Your task to perform on an android device: turn off wifi Image 0: 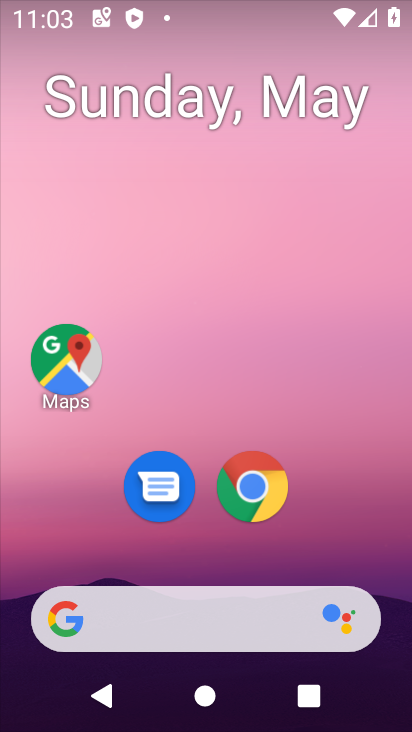
Step 0: drag from (224, 546) to (239, 121)
Your task to perform on an android device: turn off wifi Image 1: 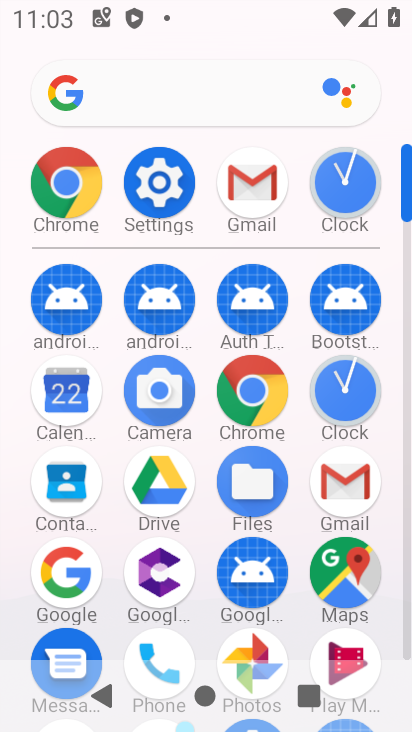
Step 1: click (163, 181)
Your task to perform on an android device: turn off wifi Image 2: 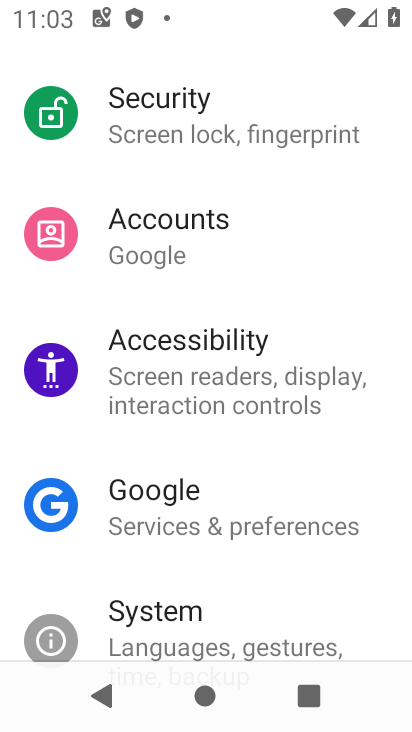
Step 2: drag from (176, 187) to (145, 576)
Your task to perform on an android device: turn off wifi Image 3: 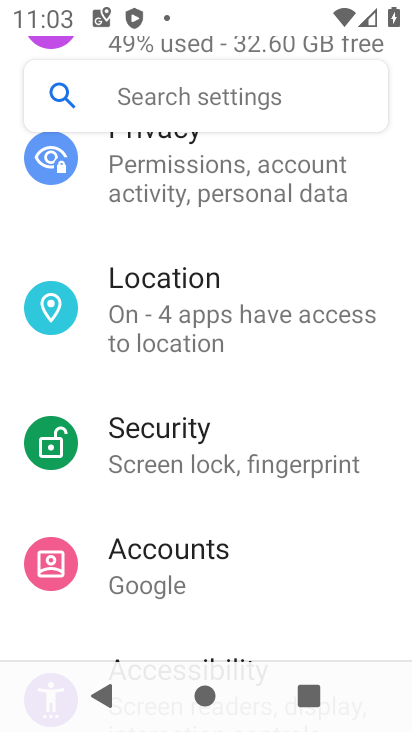
Step 3: drag from (197, 350) to (144, 706)
Your task to perform on an android device: turn off wifi Image 4: 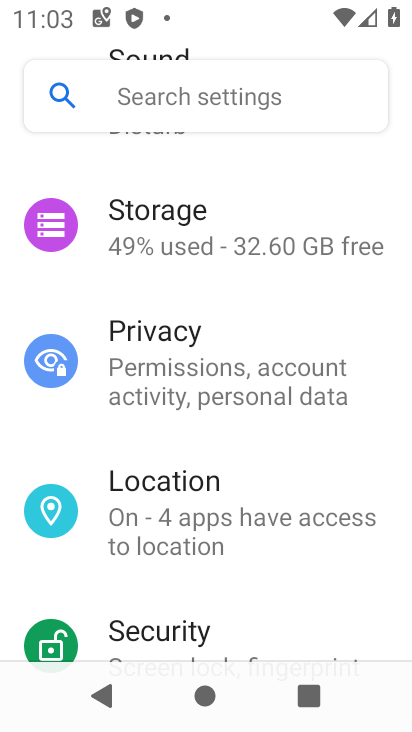
Step 4: drag from (190, 373) to (148, 725)
Your task to perform on an android device: turn off wifi Image 5: 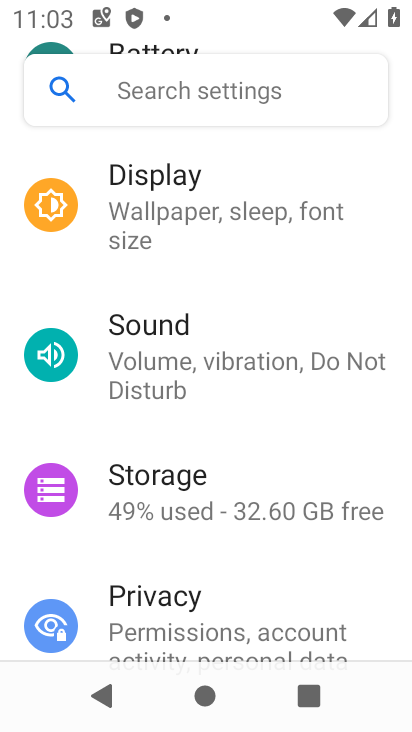
Step 5: drag from (269, 307) to (222, 672)
Your task to perform on an android device: turn off wifi Image 6: 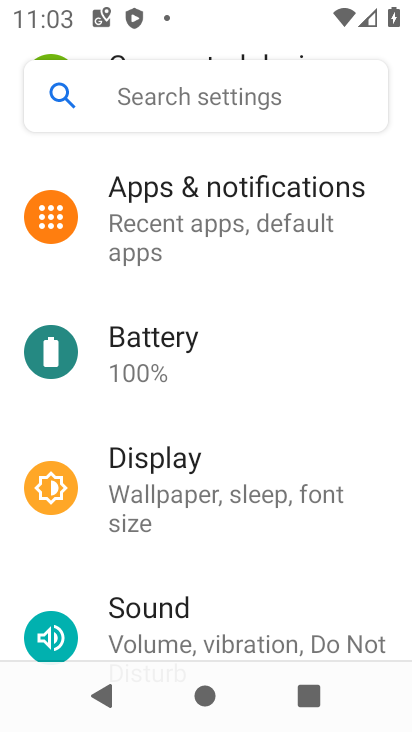
Step 6: drag from (251, 232) to (220, 623)
Your task to perform on an android device: turn off wifi Image 7: 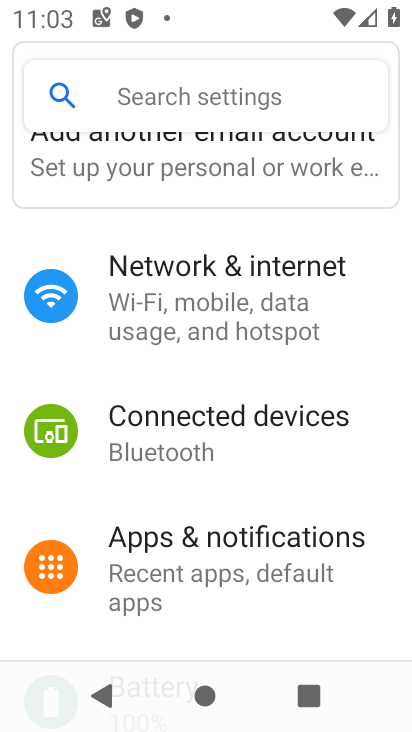
Step 7: click (178, 316)
Your task to perform on an android device: turn off wifi Image 8: 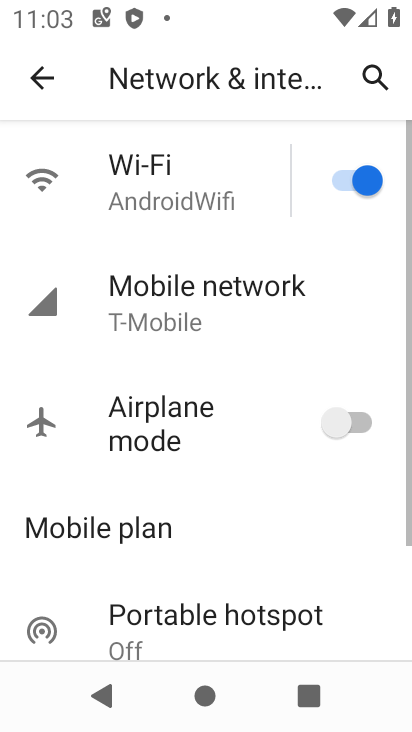
Step 8: click (324, 189)
Your task to perform on an android device: turn off wifi Image 9: 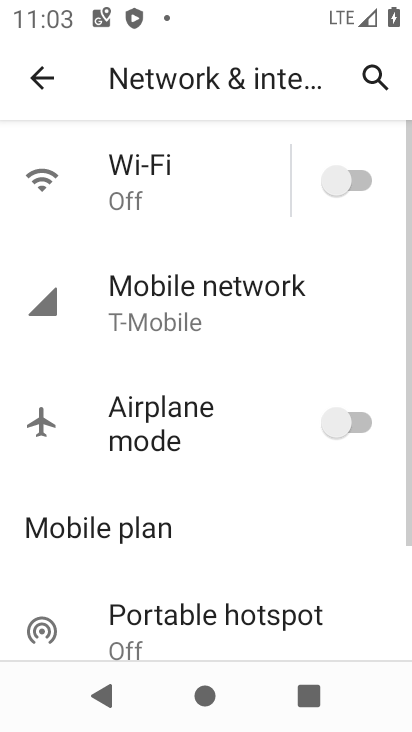
Step 9: task complete